Your task to perform on an android device: remove spam from my inbox in the gmail app Image 0: 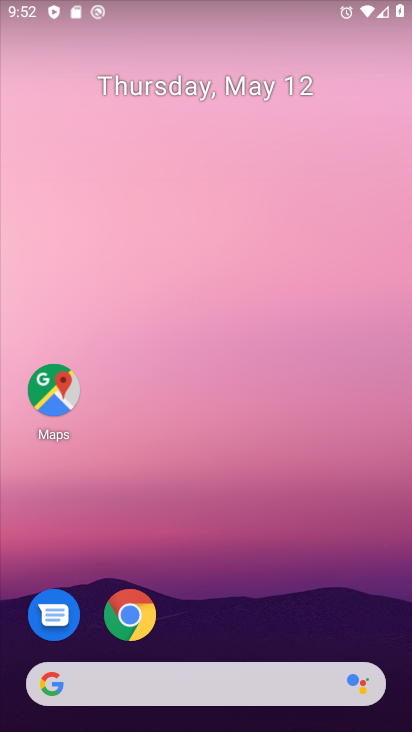
Step 0: drag from (290, 615) to (239, 128)
Your task to perform on an android device: remove spam from my inbox in the gmail app Image 1: 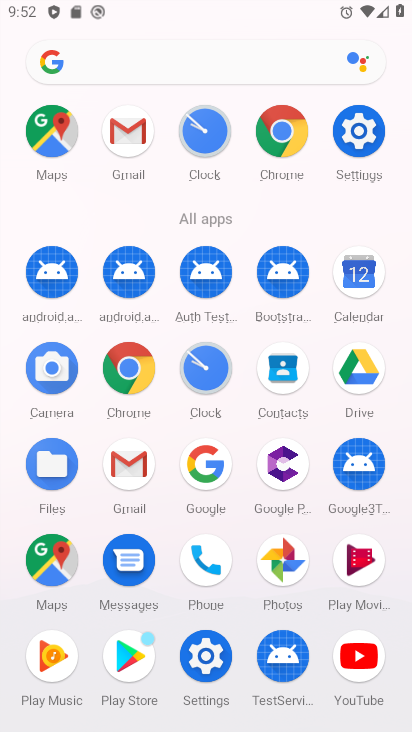
Step 1: click (125, 130)
Your task to perform on an android device: remove spam from my inbox in the gmail app Image 2: 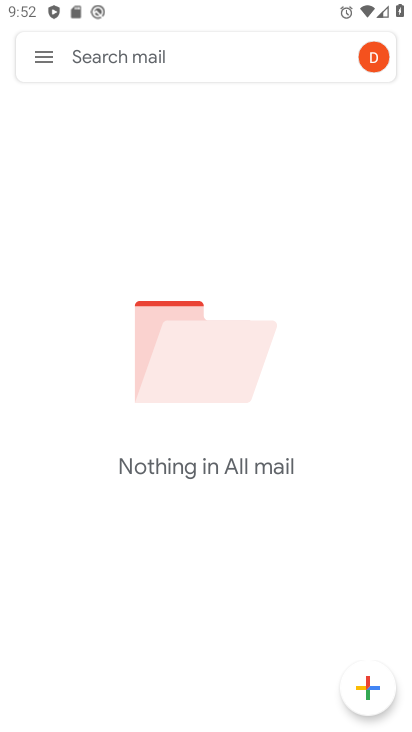
Step 2: click (41, 58)
Your task to perform on an android device: remove spam from my inbox in the gmail app Image 3: 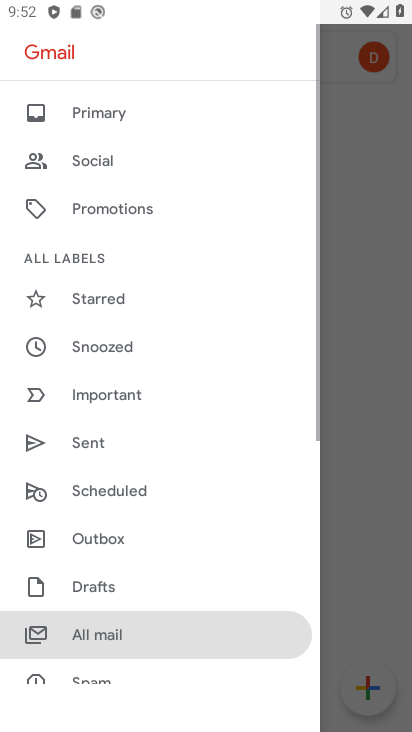
Step 3: drag from (185, 565) to (141, 708)
Your task to perform on an android device: remove spam from my inbox in the gmail app Image 4: 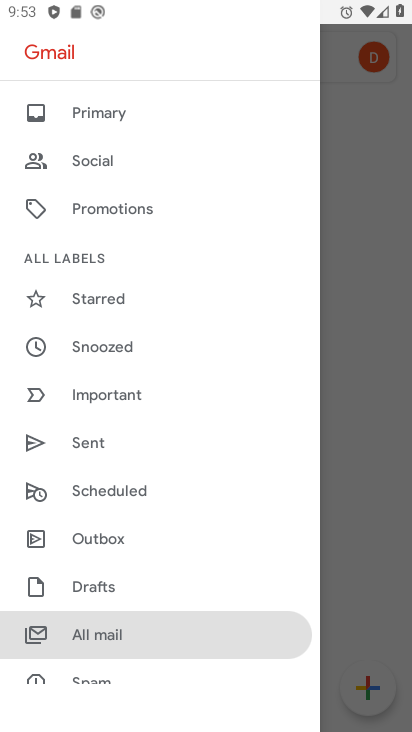
Step 4: drag from (184, 583) to (266, 236)
Your task to perform on an android device: remove spam from my inbox in the gmail app Image 5: 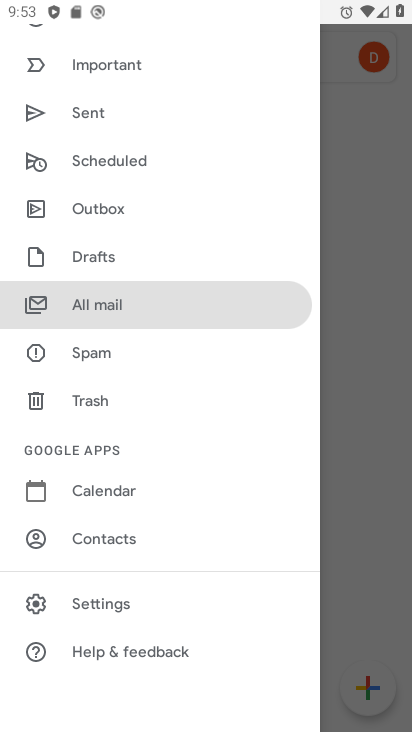
Step 5: click (137, 349)
Your task to perform on an android device: remove spam from my inbox in the gmail app Image 6: 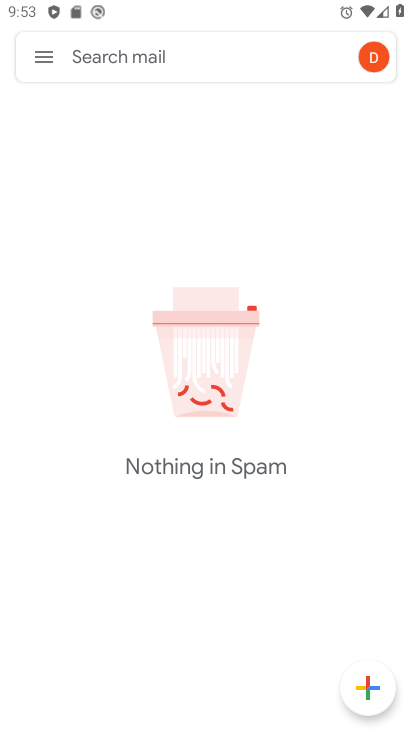
Step 6: click (39, 57)
Your task to perform on an android device: remove spam from my inbox in the gmail app Image 7: 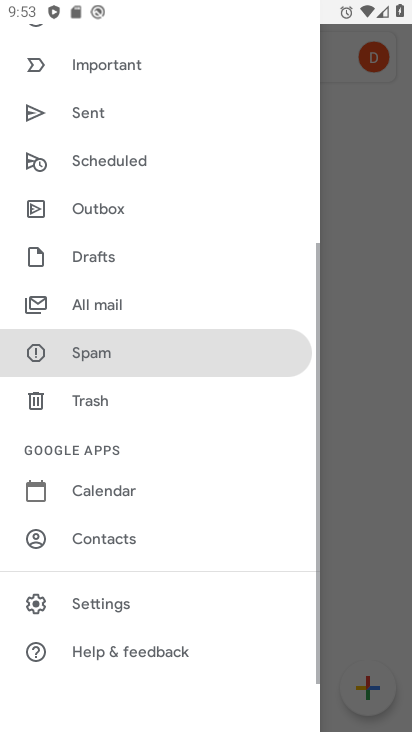
Step 7: drag from (129, 114) to (149, 579)
Your task to perform on an android device: remove spam from my inbox in the gmail app Image 8: 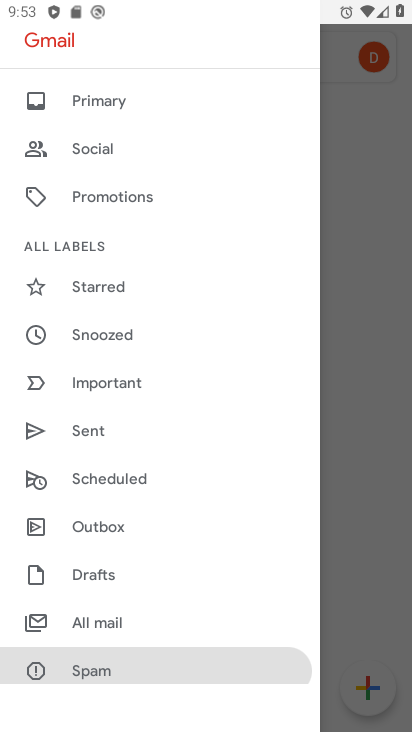
Step 8: drag from (146, 188) to (144, 407)
Your task to perform on an android device: remove spam from my inbox in the gmail app Image 9: 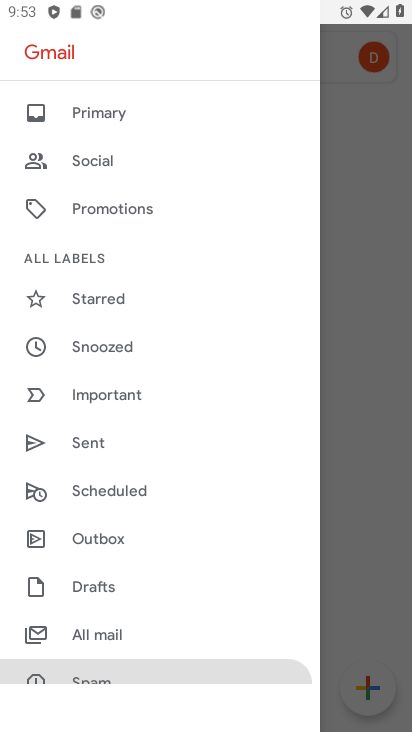
Step 9: click (93, 620)
Your task to perform on an android device: remove spam from my inbox in the gmail app Image 10: 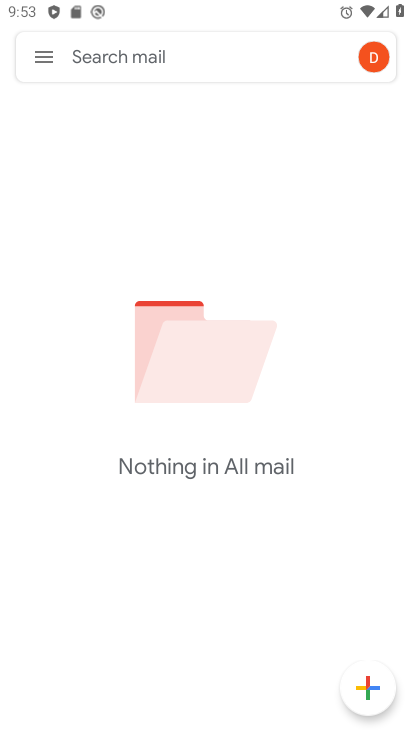
Step 10: task complete